Your task to perform on an android device: turn off priority inbox in the gmail app Image 0: 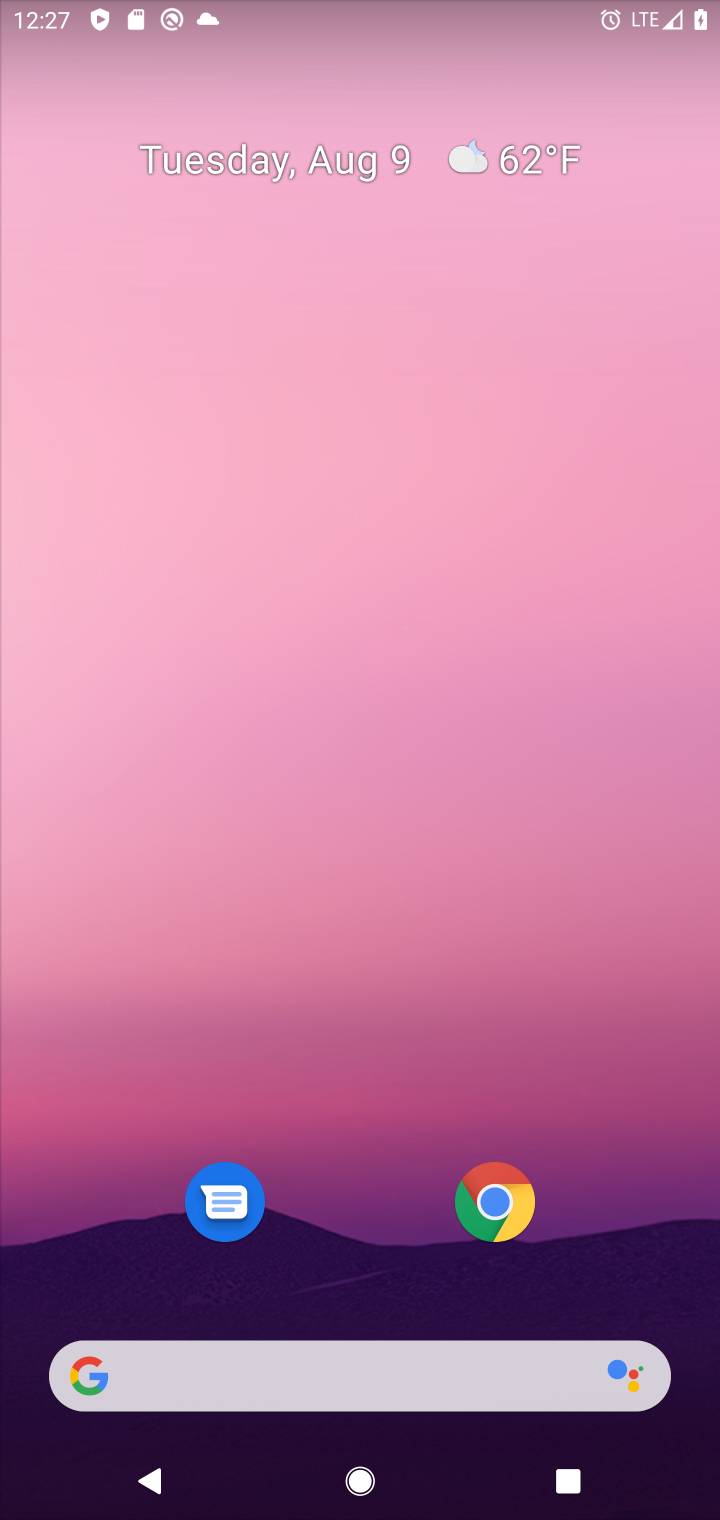
Step 0: drag from (339, 1173) to (291, 383)
Your task to perform on an android device: turn off priority inbox in the gmail app Image 1: 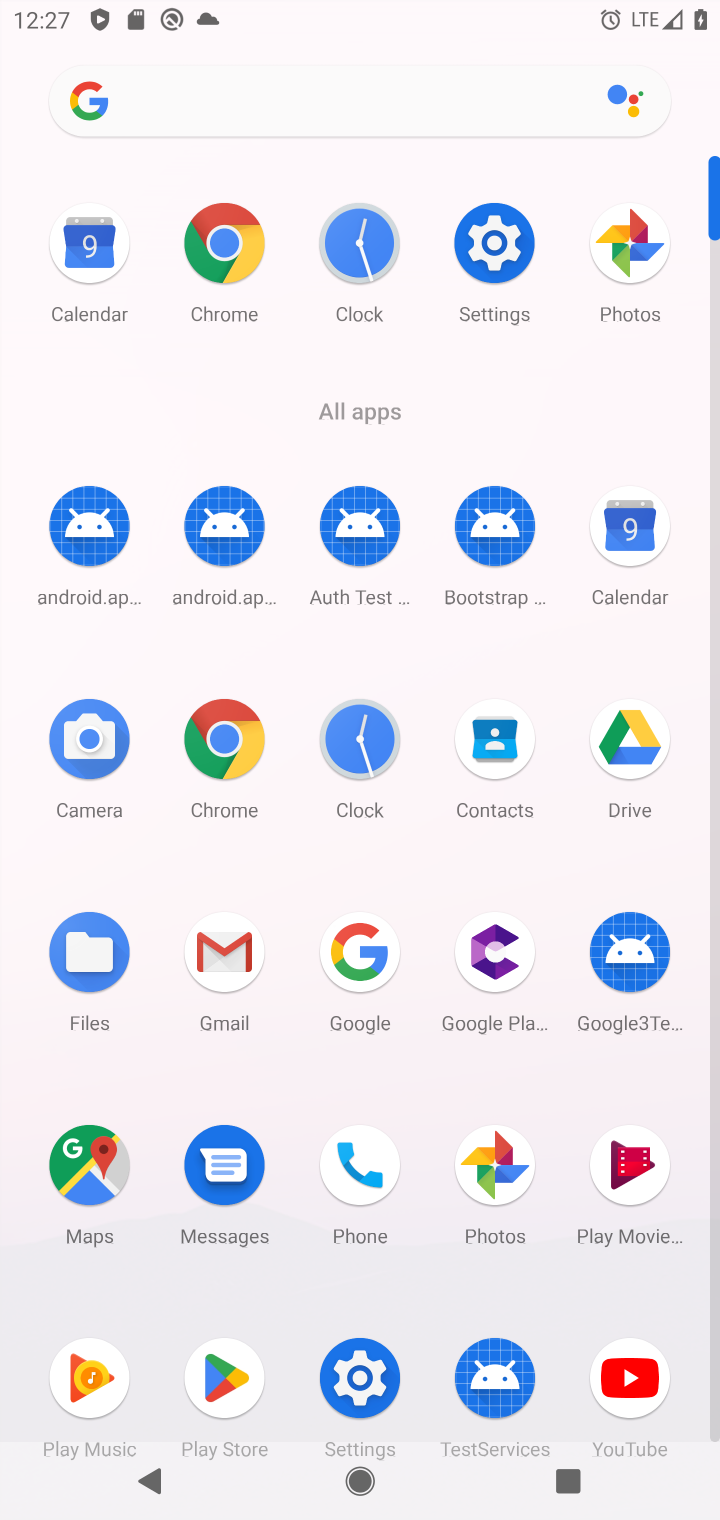
Step 1: click (231, 984)
Your task to perform on an android device: turn off priority inbox in the gmail app Image 2: 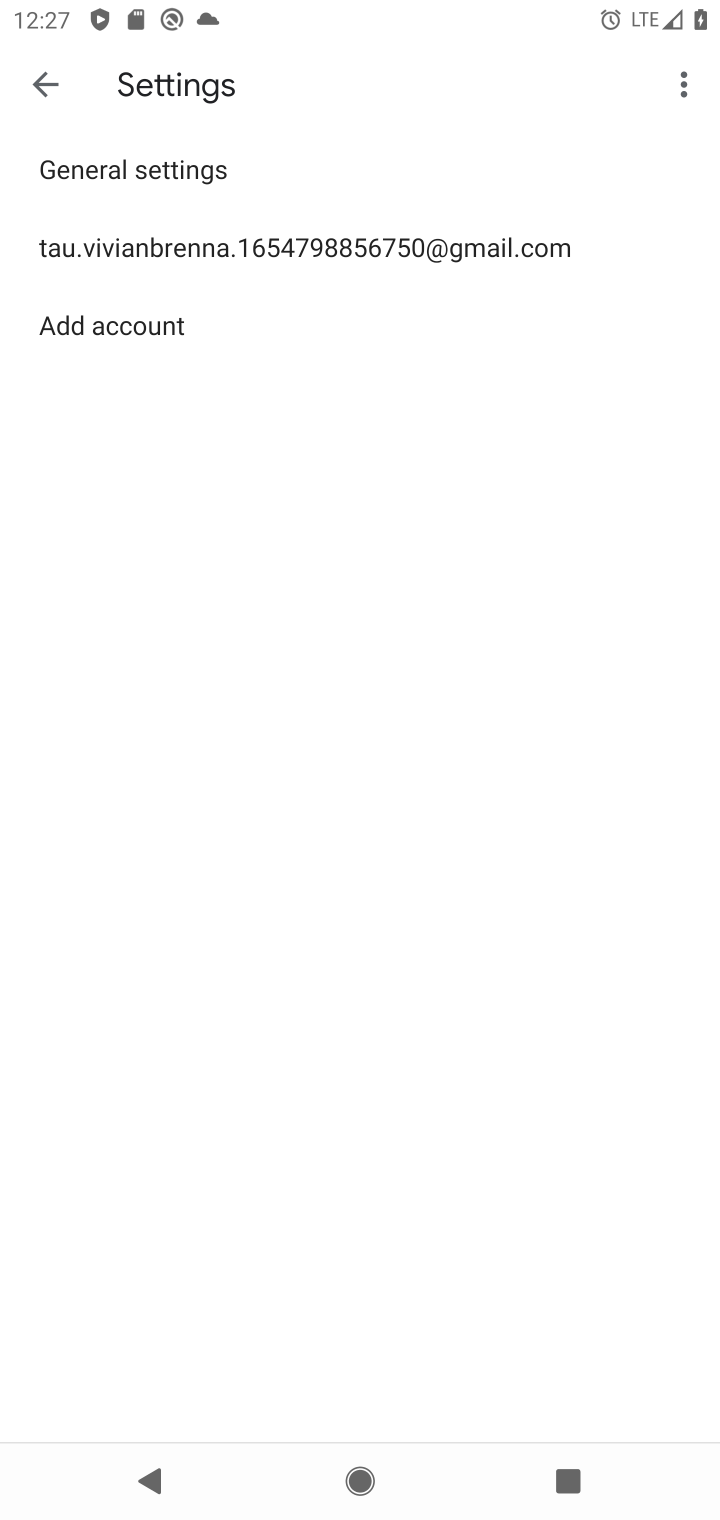
Step 2: click (118, 253)
Your task to perform on an android device: turn off priority inbox in the gmail app Image 3: 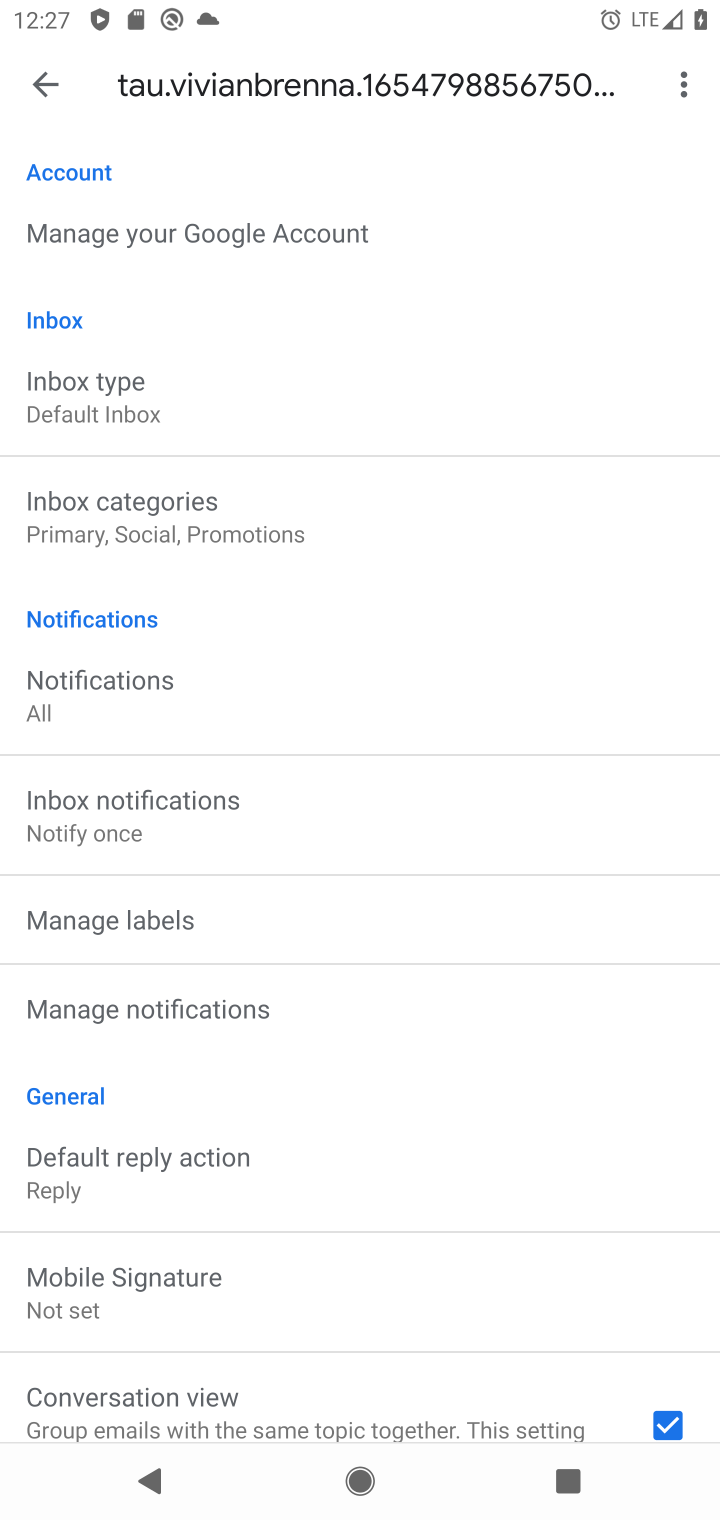
Step 3: click (51, 381)
Your task to perform on an android device: turn off priority inbox in the gmail app Image 4: 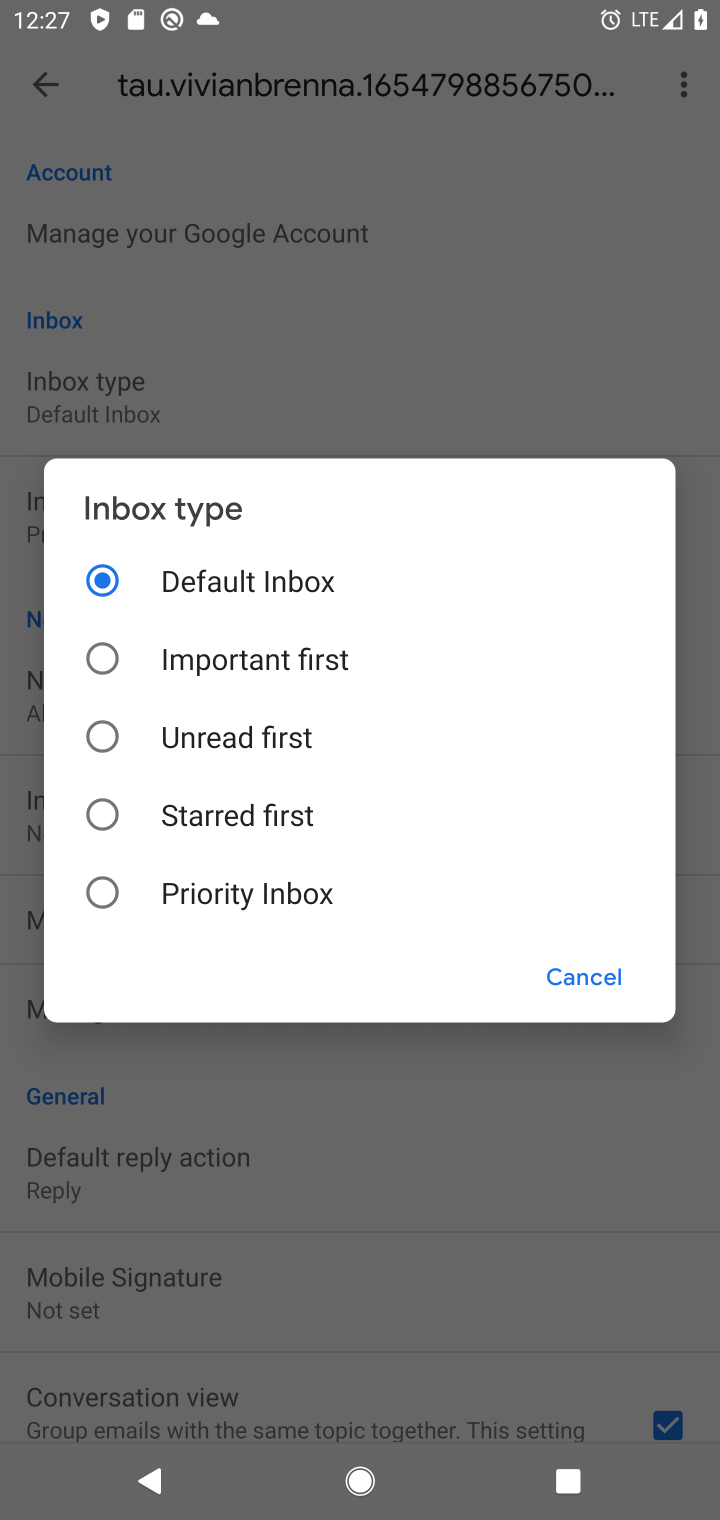
Step 4: click (118, 878)
Your task to perform on an android device: turn off priority inbox in the gmail app Image 5: 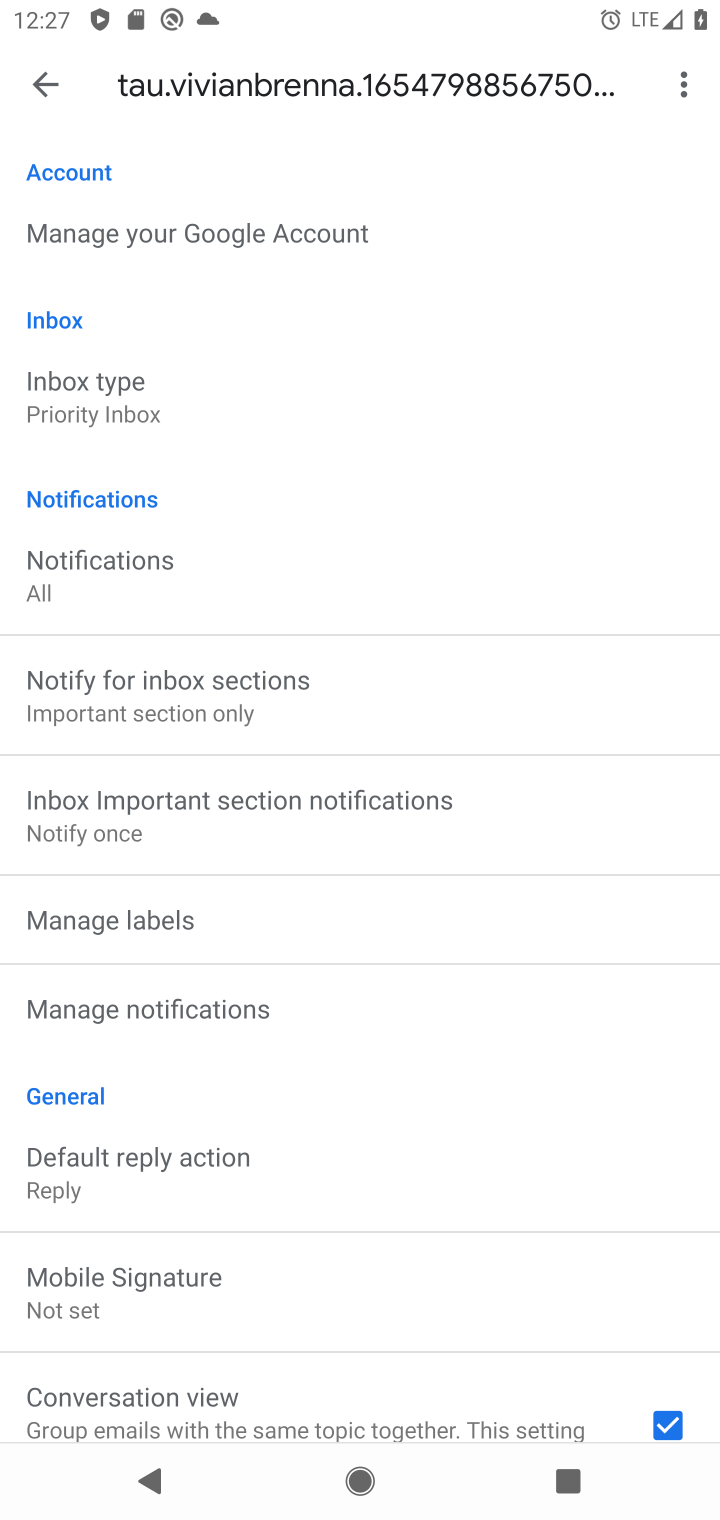
Step 5: task complete